Your task to perform on an android device: turn off javascript in the chrome app Image 0: 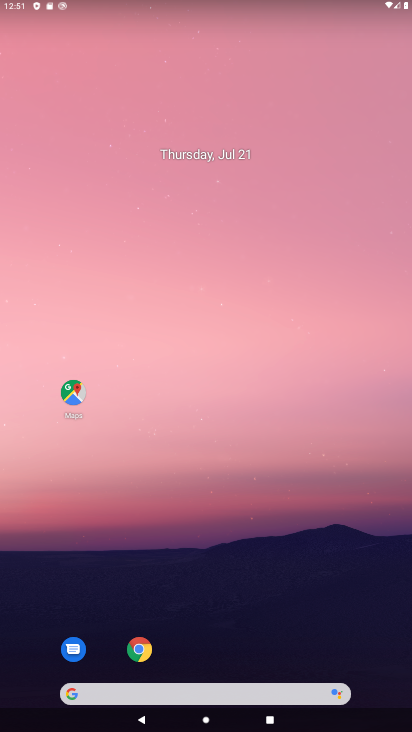
Step 0: click (141, 655)
Your task to perform on an android device: turn off javascript in the chrome app Image 1: 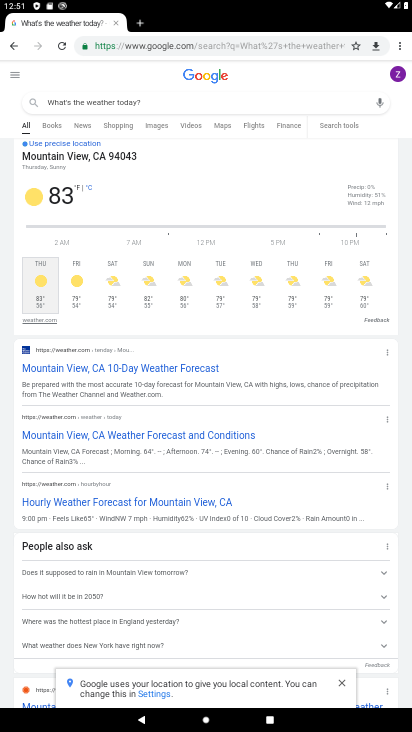
Step 1: click (402, 46)
Your task to perform on an android device: turn off javascript in the chrome app Image 2: 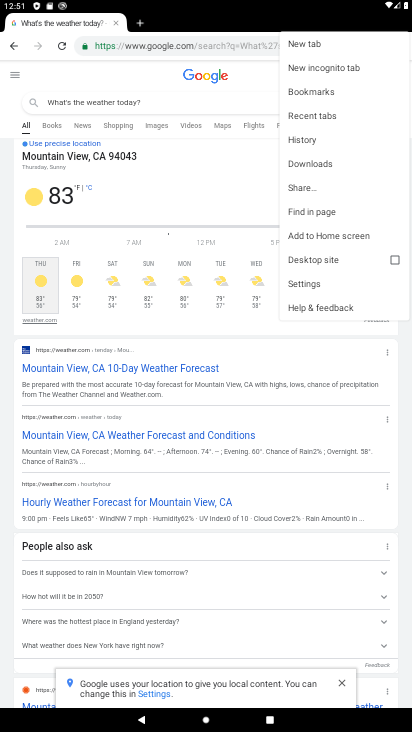
Step 2: click (317, 282)
Your task to perform on an android device: turn off javascript in the chrome app Image 3: 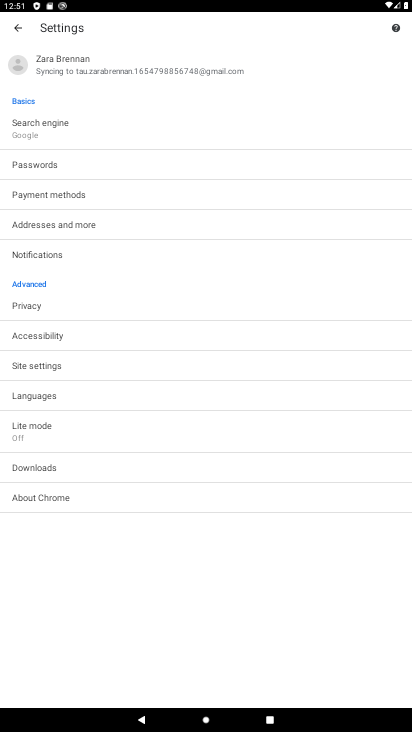
Step 3: click (103, 363)
Your task to perform on an android device: turn off javascript in the chrome app Image 4: 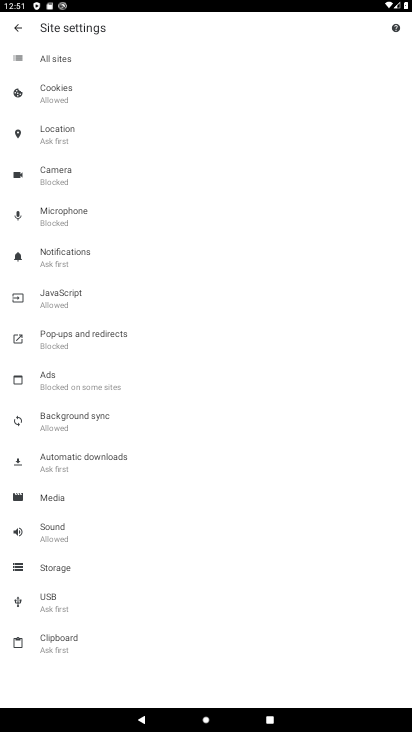
Step 4: click (97, 300)
Your task to perform on an android device: turn off javascript in the chrome app Image 5: 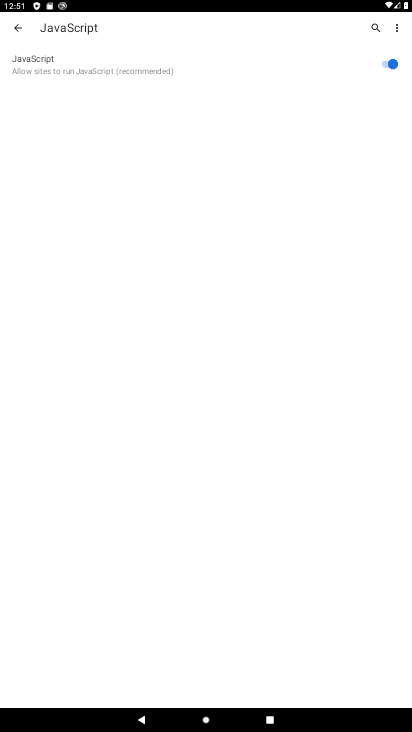
Step 5: click (388, 63)
Your task to perform on an android device: turn off javascript in the chrome app Image 6: 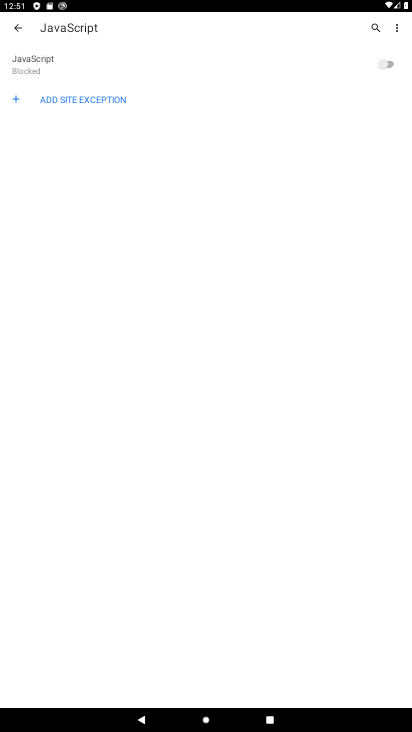
Step 6: task complete